Your task to perform on an android device: turn on airplane mode Image 0: 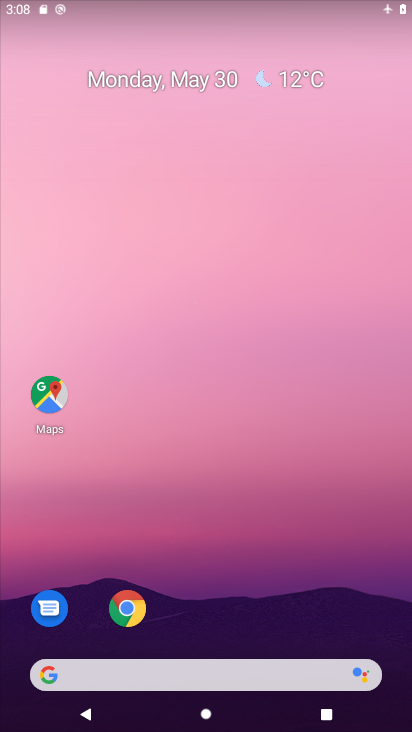
Step 0: drag from (275, 575) to (259, 61)
Your task to perform on an android device: turn on airplane mode Image 1: 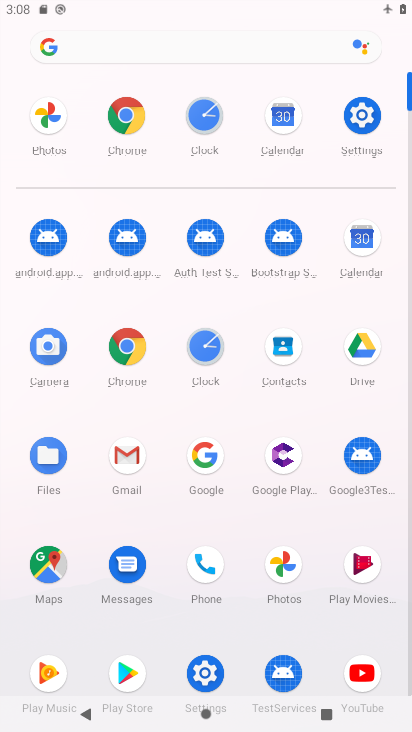
Step 1: click (339, 122)
Your task to perform on an android device: turn on airplane mode Image 2: 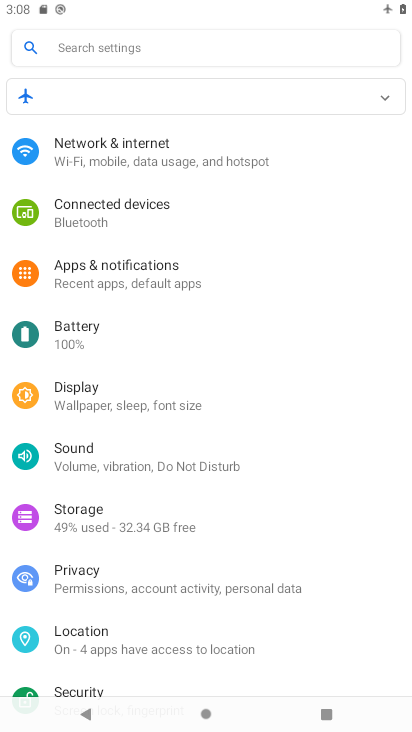
Step 2: click (166, 163)
Your task to perform on an android device: turn on airplane mode Image 3: 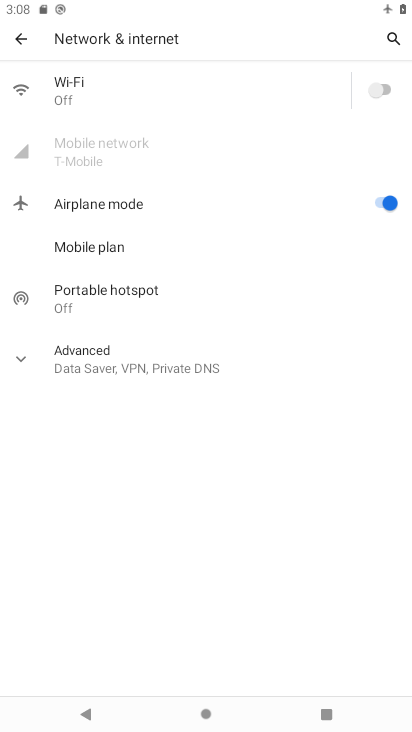
Step 3: task complete